Your task to perform on an android device: change the upload size in google photos Image 0: 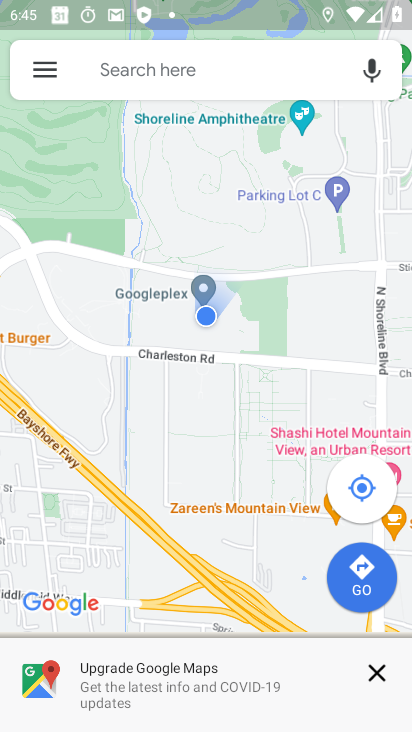
Step 0: press home button
Your task to perform on an android device: change the upload size in google photos Image 1: 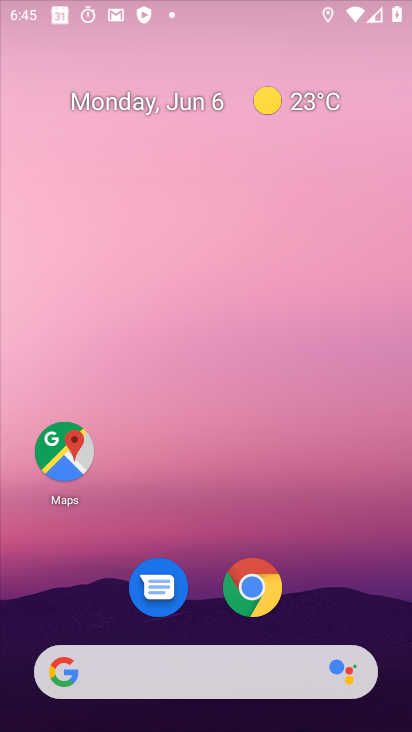
Step 1: drag from (378, 661) to (284, 47)
Your task to perform on an android device: change the upload size in google photos Image 2: 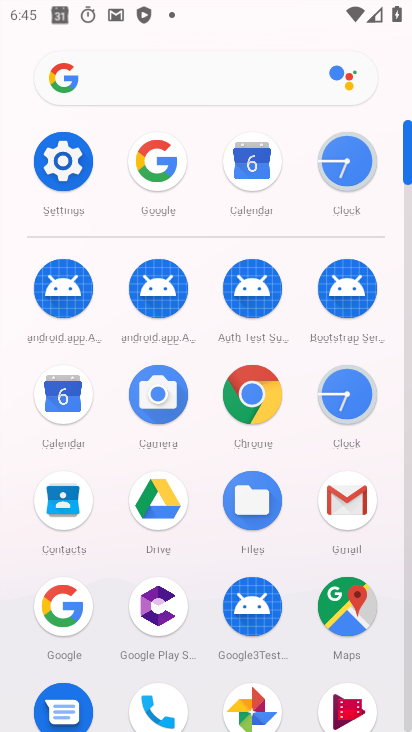
Step 2: click (235, 699)
Your task to perform on an android device: change the upload size in google photos Image 3: 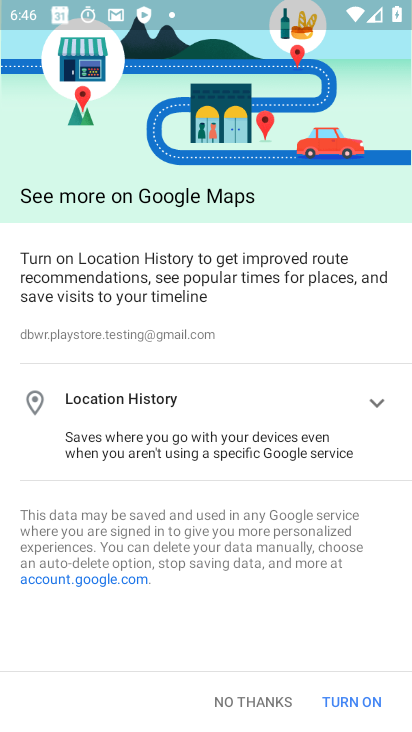
Step 3: click (248, 698)
Your task to perform on an android device: change the upload size in google photos Image 4: 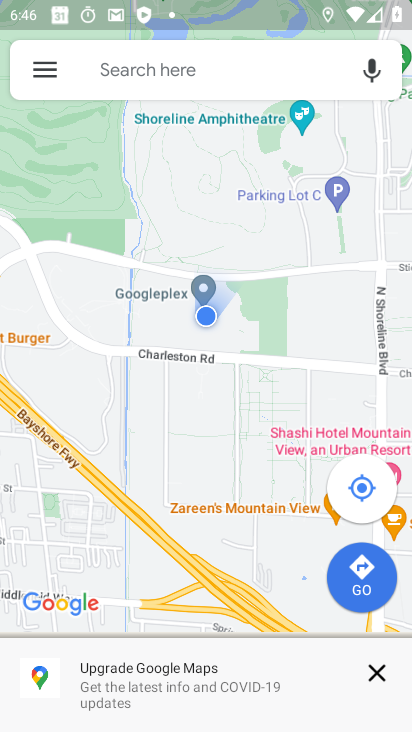
Step 4: click (35, 61)
Your task to perform on an android device: change the upload size in google photos Image 5: 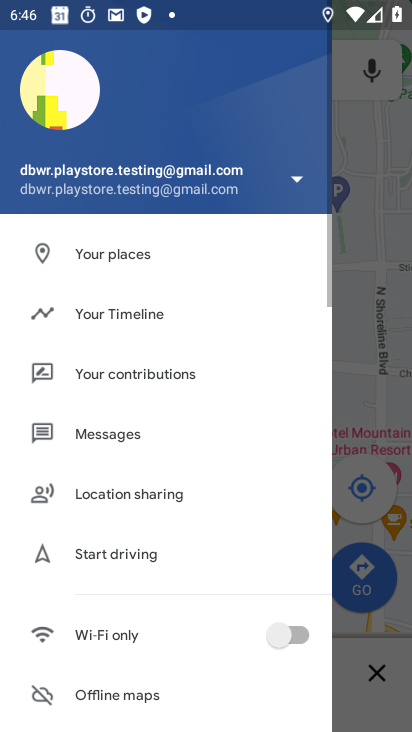
Step 5: drag from (159, 674) to (193, 201)
Your task to perform on an android device: change the upload size in google photos Image 6: 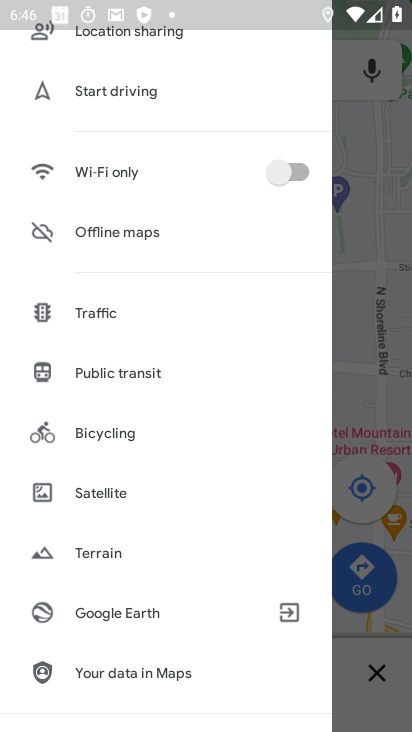
Step 6: drag from (103, 655) to (144, 104)
Your task to perform on an android device: change the upload size in google photos Image 7: 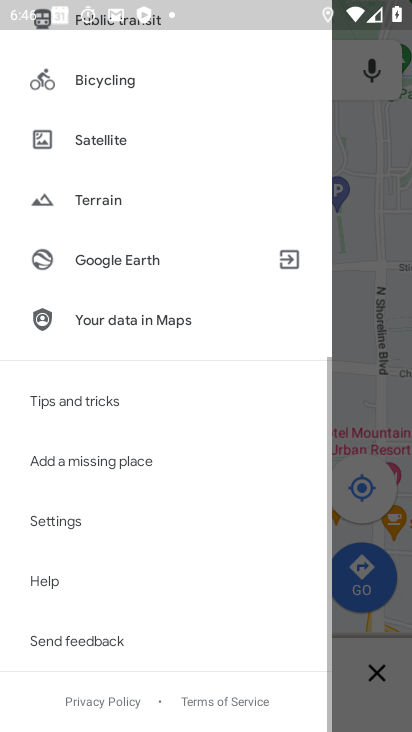
Step 7: click (62, 522)
Your task to perform on an android device: change the upload size in google photos Image 8: 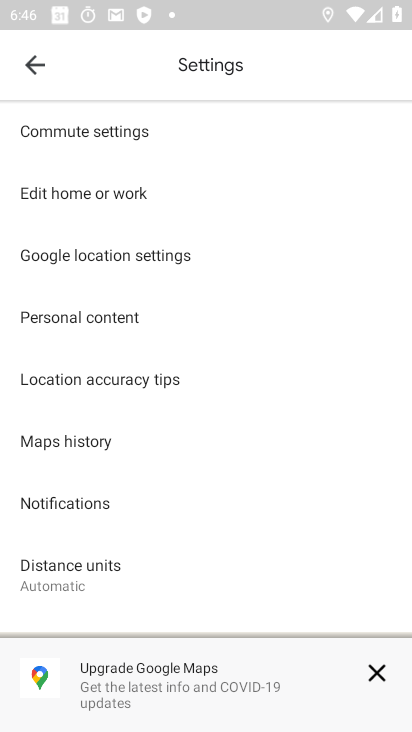
Step 8: drag from (206, 576) to (230, 182)
Your task to perform on an android device: change the upload size in google photos Image 9: 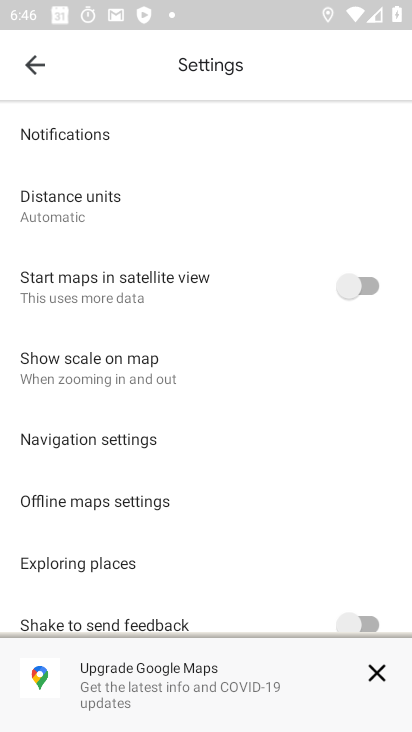
Step 9: drag from (190, 571) to (207, 164)
Your task to perform on an android device: change the upload size in google photos Image 10: 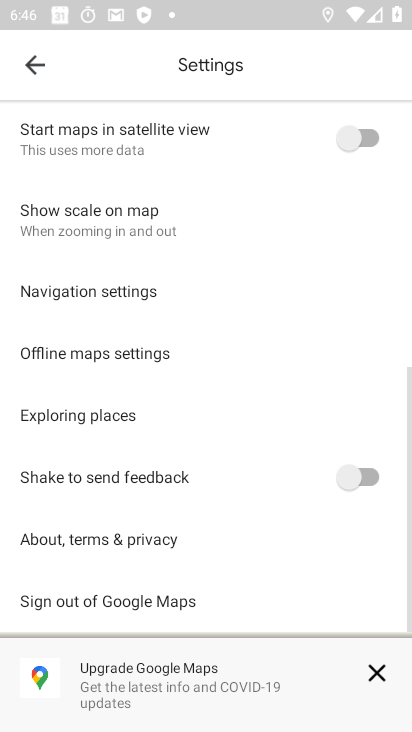
Step 10: drag from (207, 160) to (167, 656)
Your task to perform on an android device: change the upload size in google photos Image 11: 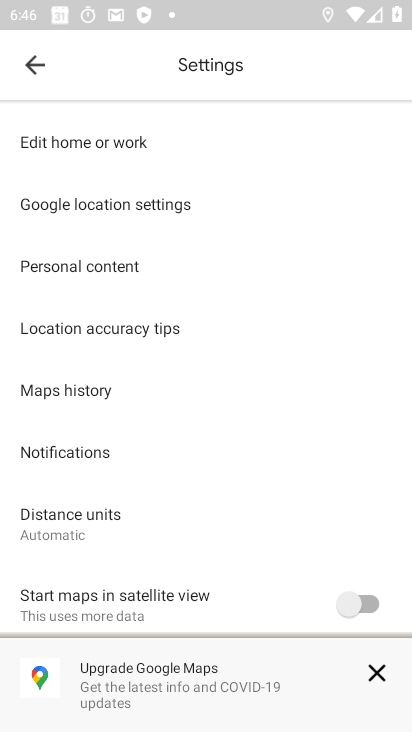
Step 11: drag from (148, 197) to (142, 569)
Your task to perform on an android device: change the upload size in google photos Image 12: 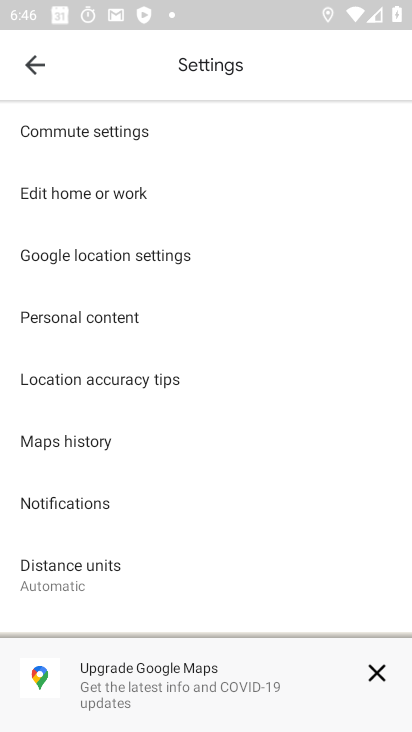
Step 12: press back button
Your task to perform on an android device: change the upload size in google photos Image 13: 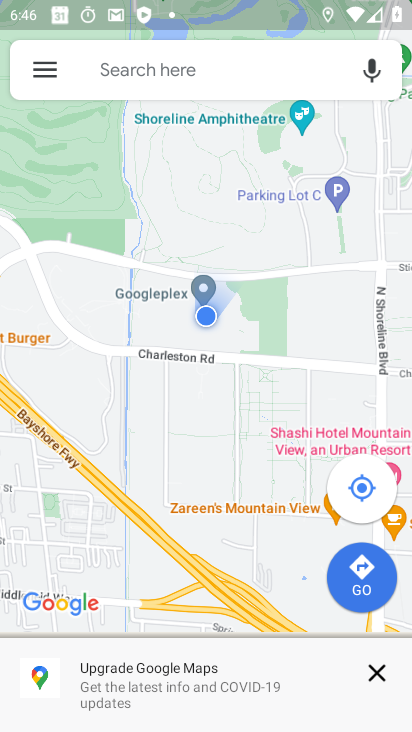
Step 13: click (28, 49)
Your task to perform on an android device: change the upload size in google photos Image 14: 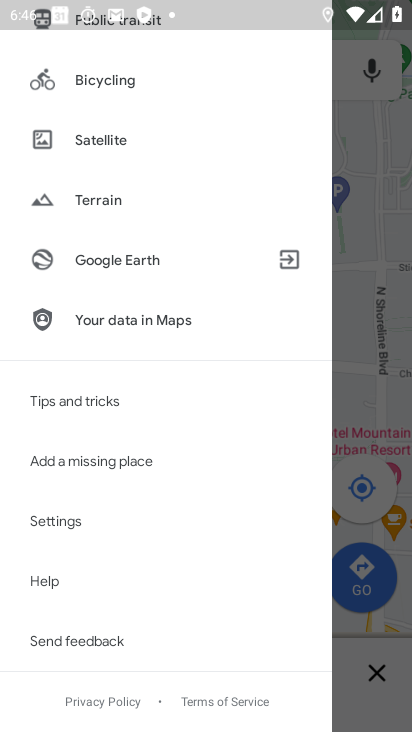
Step 14: click (60, 510)
Your task to perform on an android device: change the upload size in google photos Image 15: 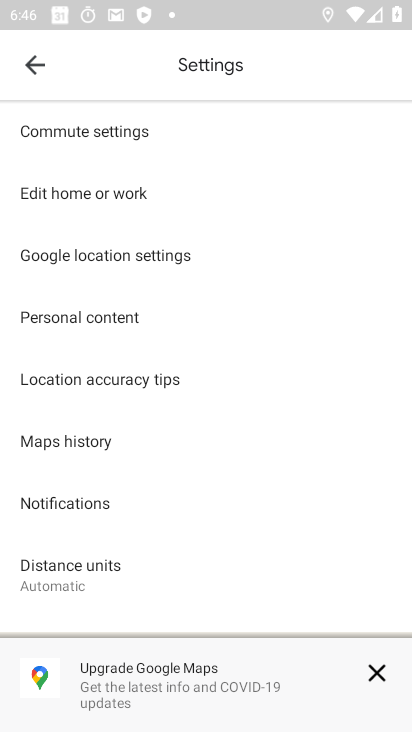
Step 15: task complete